Your task to perform on an android device: Go to display settings Image 0: 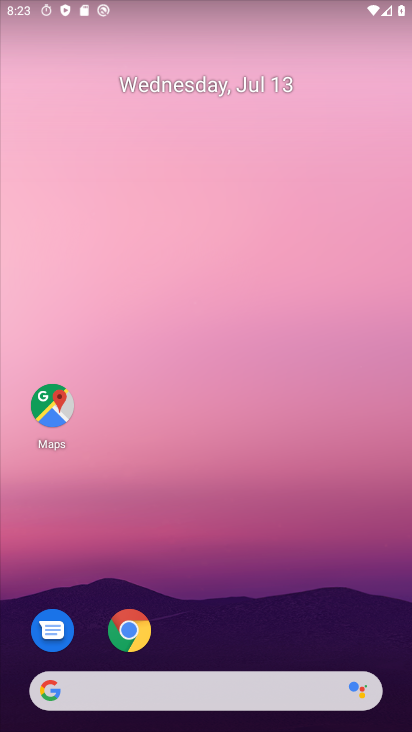
Step 0: drag from (257, 644) to (337, 320)
Your task to perform on an android device: Go to display settings Image 1: 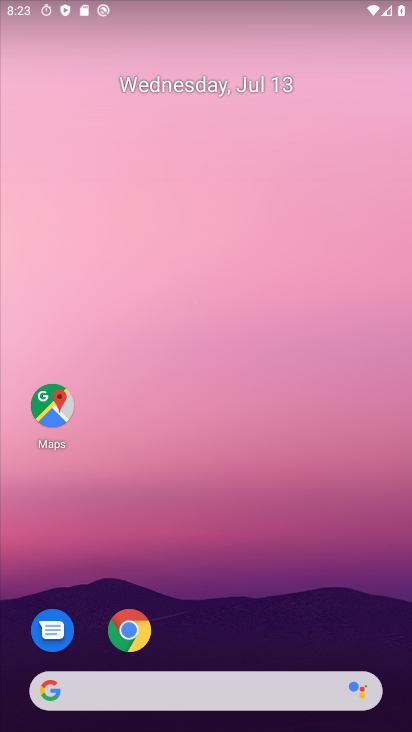
Step 1: drag from (200, 582) to (229, 319)
Your task to perform on an android device: Go to display settings Image 2: 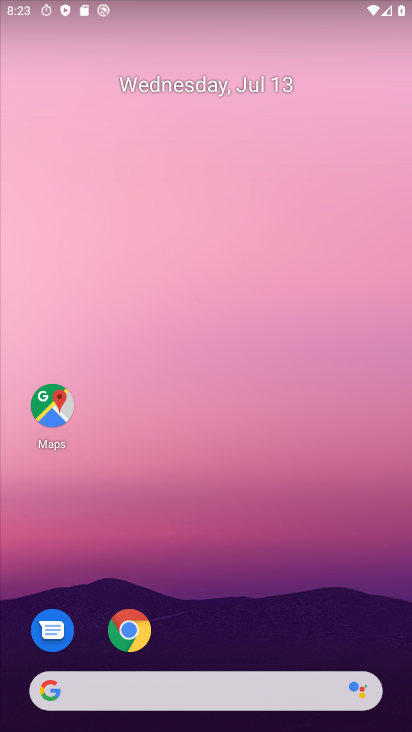
Step 2: drag from (192, 625) to (55, 0)
Your task to perform on an android device: Go to display settings Image 3: 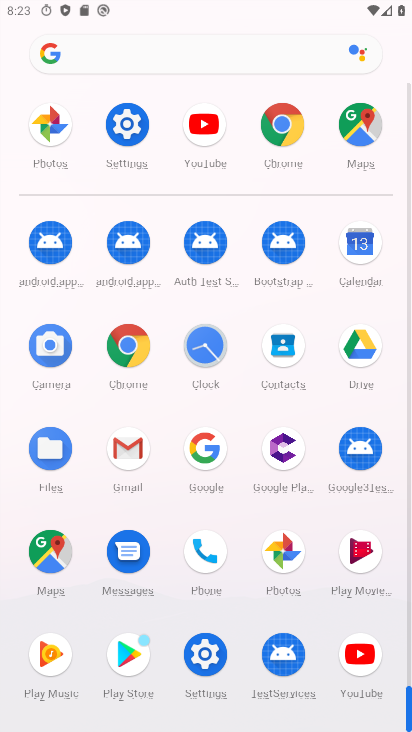
Step 3: click (202, 660)
Your task to perform on an android device: Go to display settings Image 4: 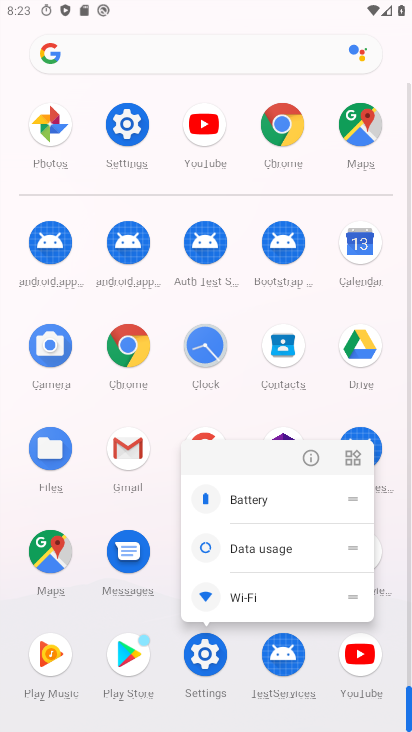
Step 4: click (312, 453)
Your task to perform on an android device: Go to display settings Image 5: 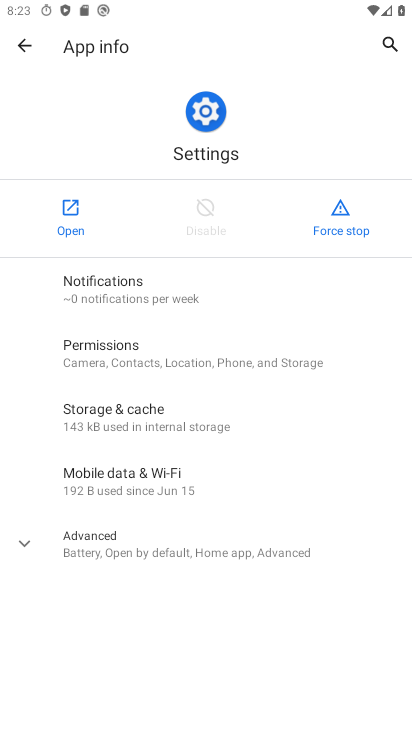
Step 5: click (62, 224)
Your task to perform on an android device: Go to display settings Image 6: 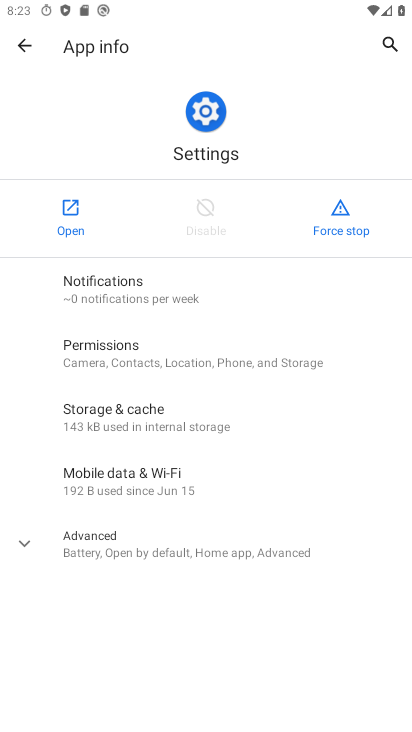
Step 6: click (62, 224)
Your task to perform on an android device: Go to display settings Image 7: 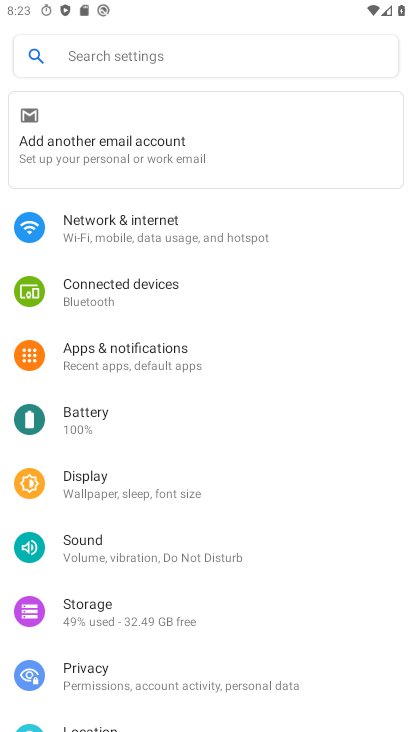
Step 7: click (118, 487)
Your task to perform on an android device: Go to display settings Image 8: 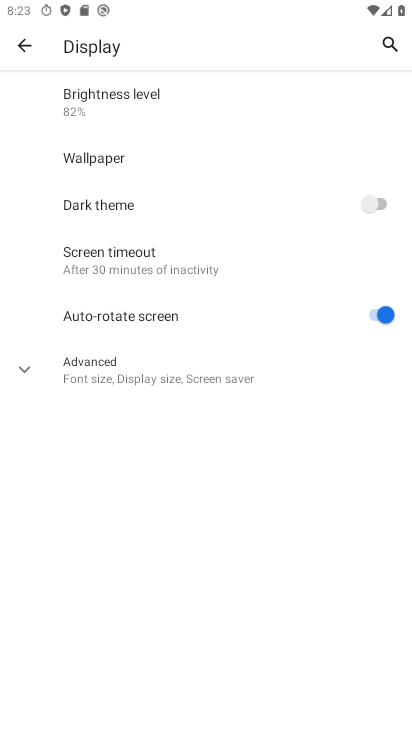
Step 8: task complete